Your task to perform on an android device: Check the news Image 0: 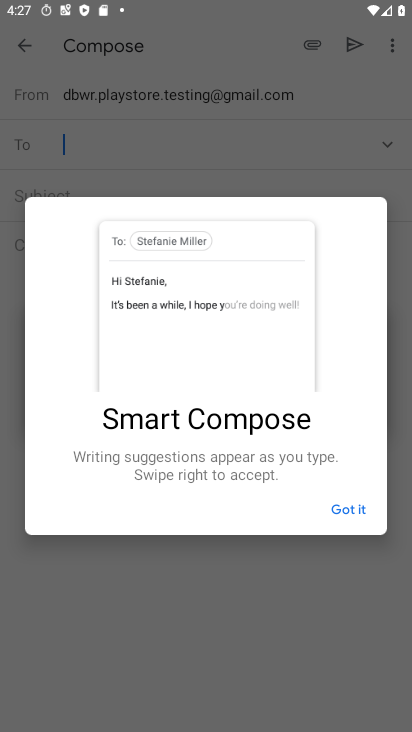
Step 0: press home button
Your task to perform on an android device: Check the news Image 1: 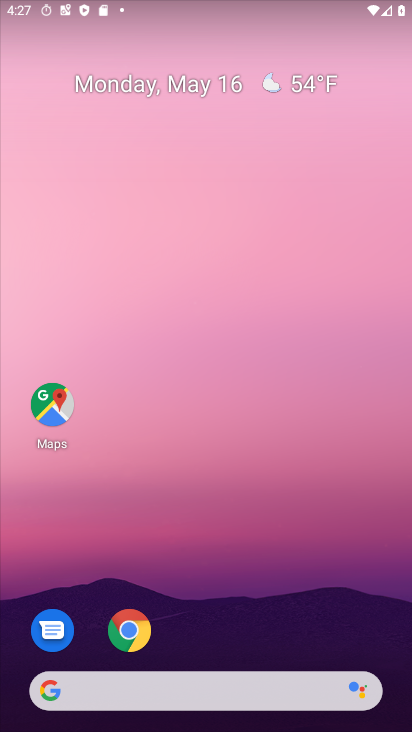
Step 1: drag from (206, 634) to (176, 119)
Your task to perform on an android device: Check the news Image 2: 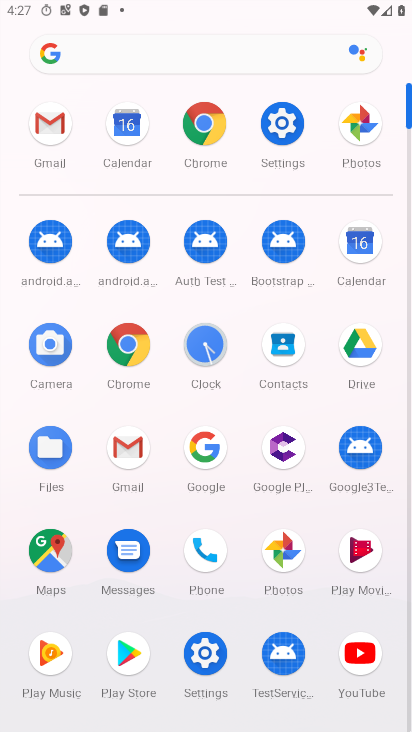
Step 2: click (196, 124)
Your task to perform on an android device: Check the news Image 3: 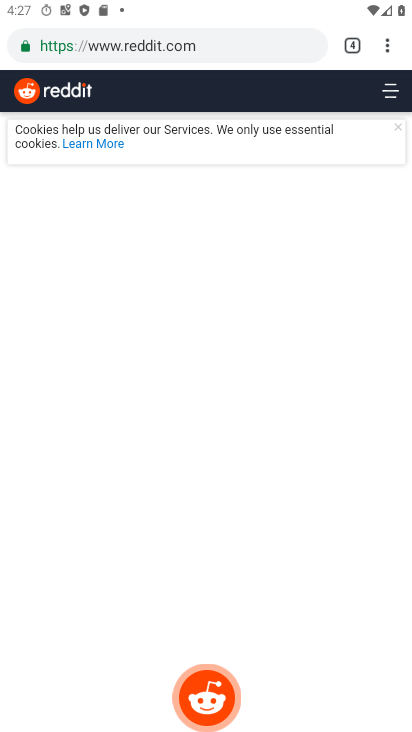
Step 3: click (209, 49)
Your task to perform on an android device: Check the news Image 4: 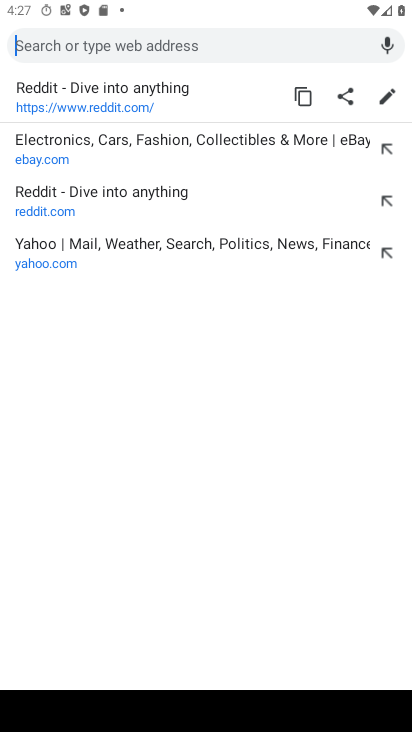
Step 4: type "news"
Your task to perform on an android device: Check the news Image 5: 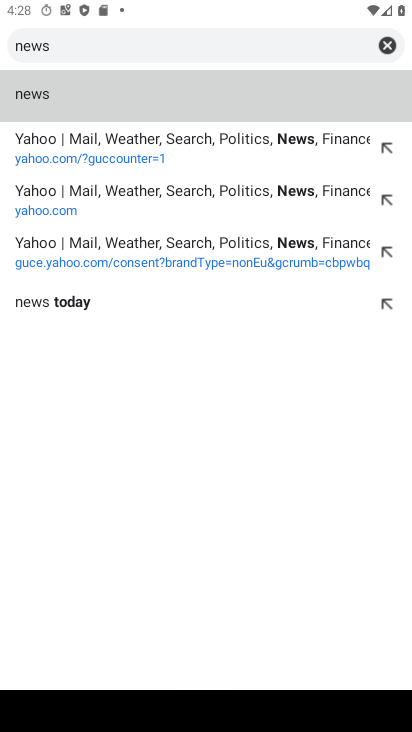
Step 5: click (42, 93)
Your task to perform on an android device: Check the news Image 6: 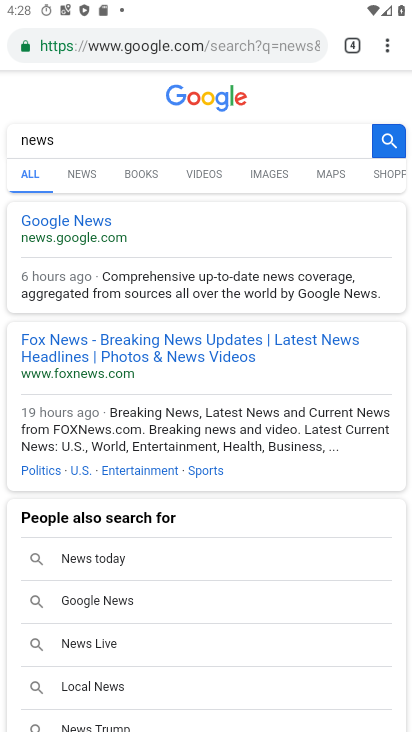
Step 6: click (73, 227)
Your task to perform on an android device: Check the news Image 7: 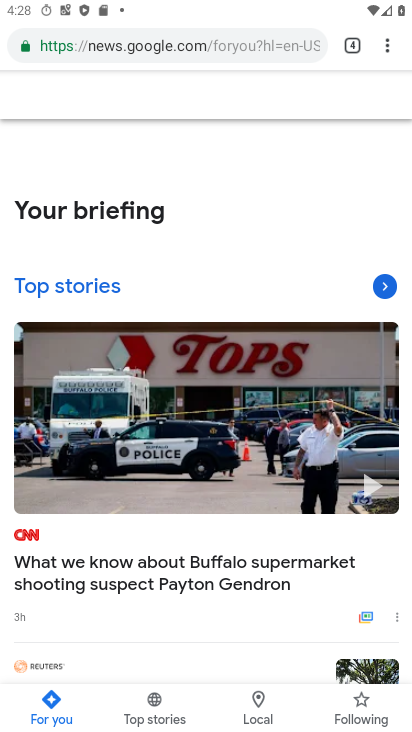
Step 7: task complete